Your task to perform on an android device: Open the stopwatch Image 0: 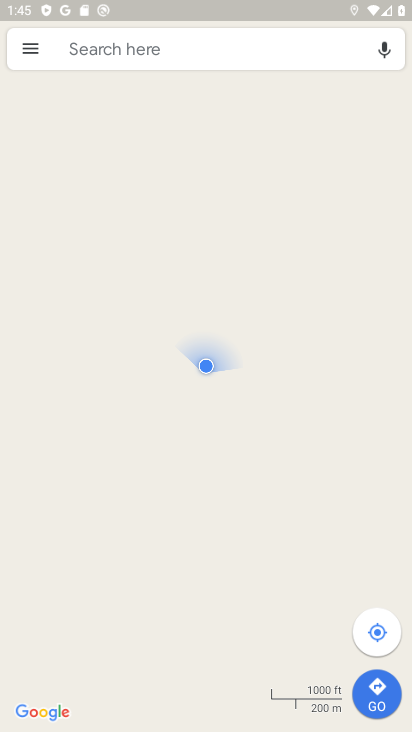
Step 0: press home button
Your task to perform on an android device: Open the stopwatch Image 1: 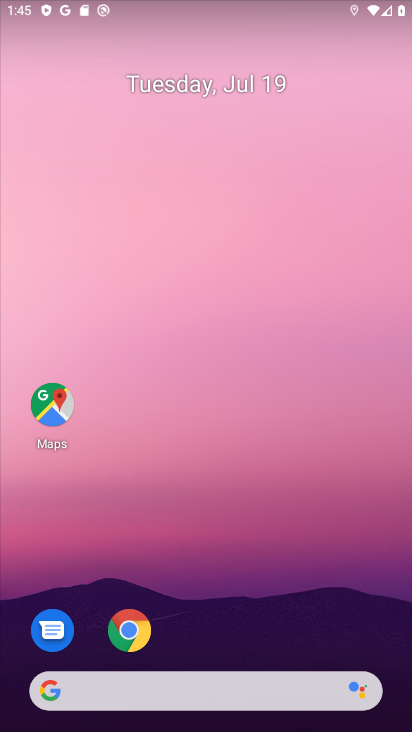
Step 1: drag from (253, 609) to (245, 76)
Your task to perform on an android device: Open the stopwatch Image 2: 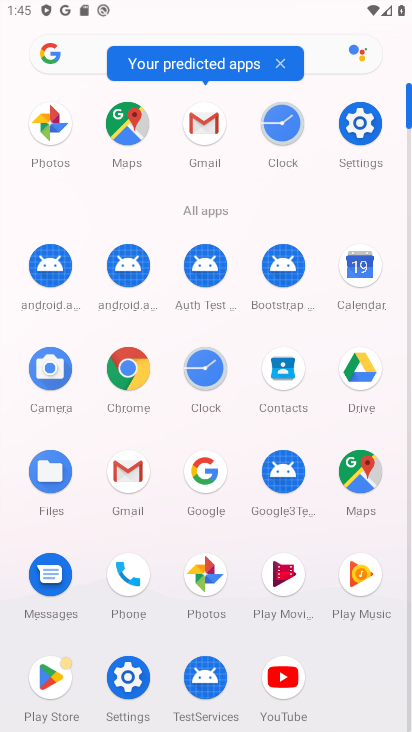
Step 2: click (283, 123)
Your task to perform on an android device: Open the stopwatch Image 3: 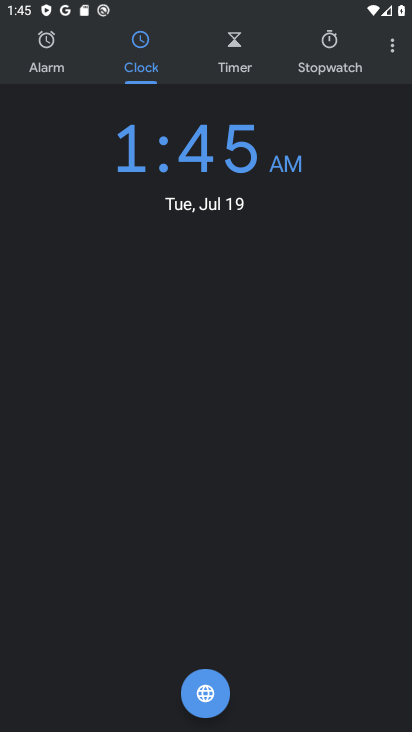
Step 3: click (315, 61)
Your task to perform on an android device: Open the stopwatch Image 4: 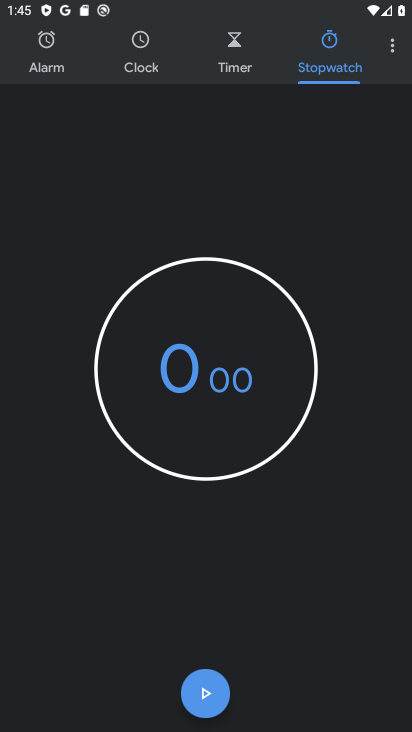
Step 4: click (196, 682)
Your task to perform on an android device: Open the stopwatch Image 5: 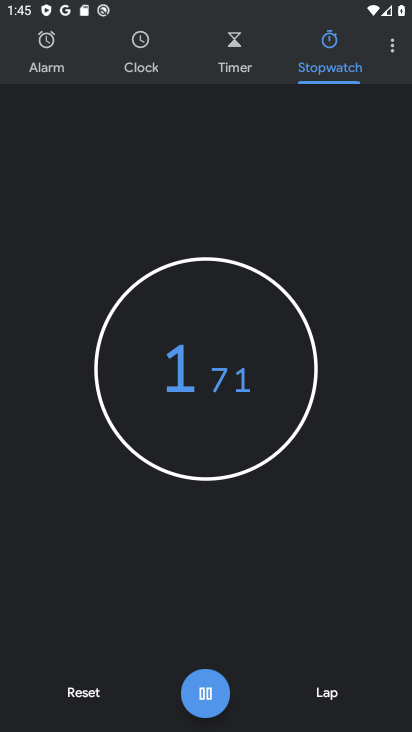
Step 5: task complete